Your task to perform on an android device: open chrome and create a bookmark for the current page Image 0: 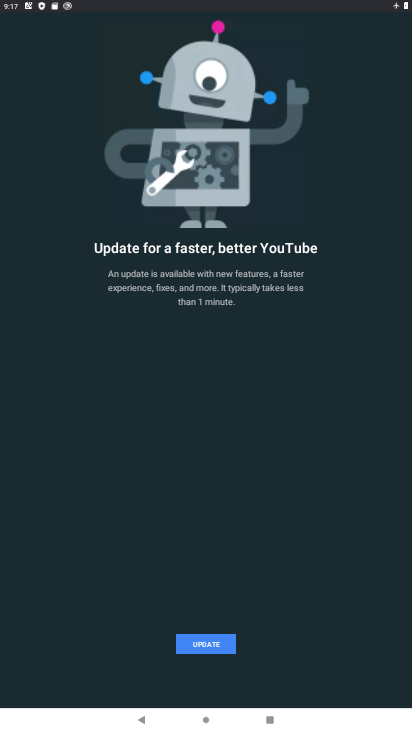
Step 0: press home button
Your task to perform on an android device: open chrome and create a bookmark for the current page Image 1: 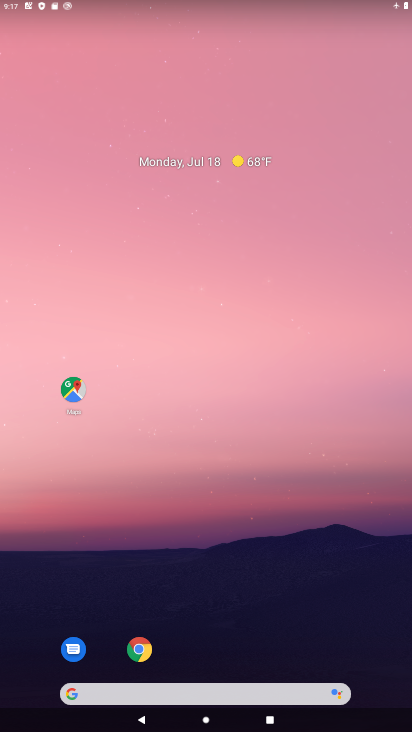
Step 1: click (139, 647)
Your task to perform on an android device: open chrome and create a bookmark for the current page Image 2: 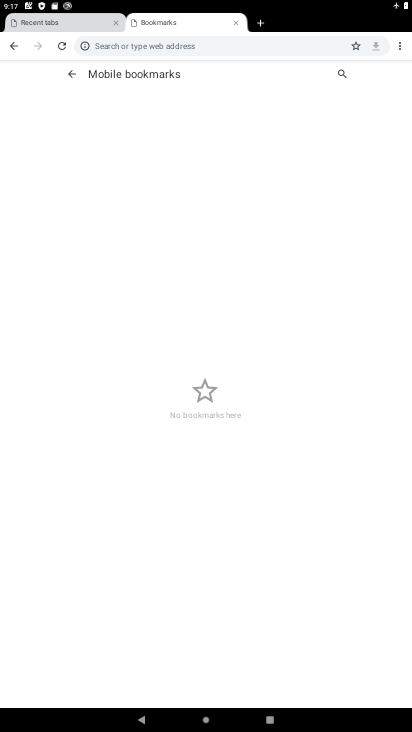
Step 2: click (401, 41)
Your task to perform on an android device: open chrome and create a bookmark for the current page Image 3: 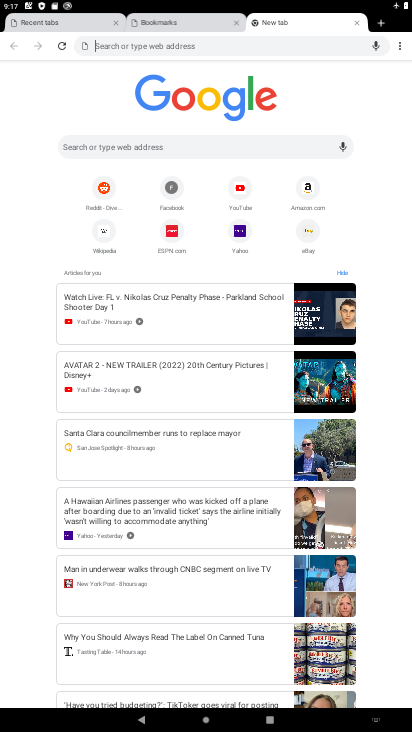
Step 3: click (398, 43)
Your task to perform on an android device: open chrome and create a bookmark for the current page Image 4: 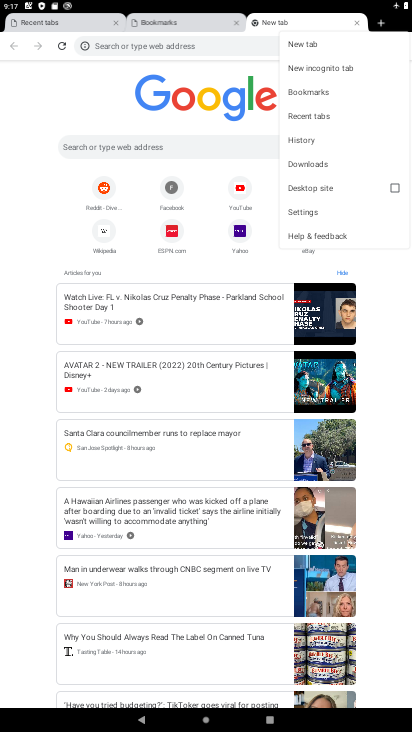
Step 4: click (44, 187)
Your task to perform on an android device: open chrome and create a bookmark for the current page Image 5: 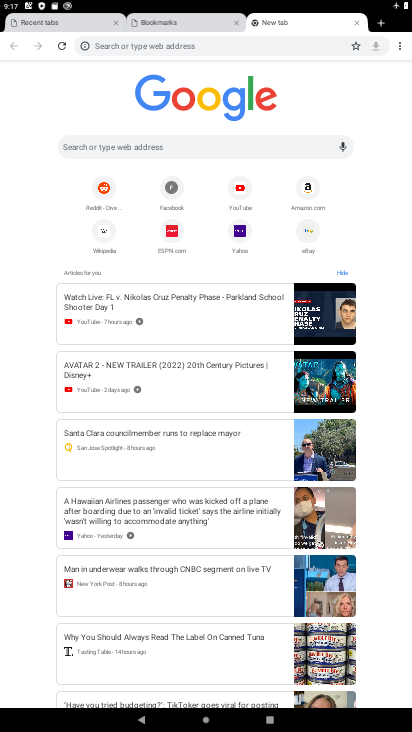
Step 5: click (353, 48)
Your task to perform on an android device: open chrome and create a bookmark for the current page Image 6: 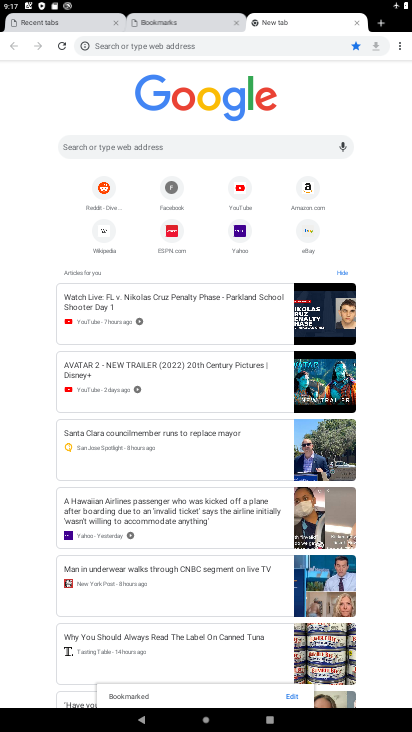
Step 6: task complete